Your task to perform on an android device: change keyboard looks Image 0: 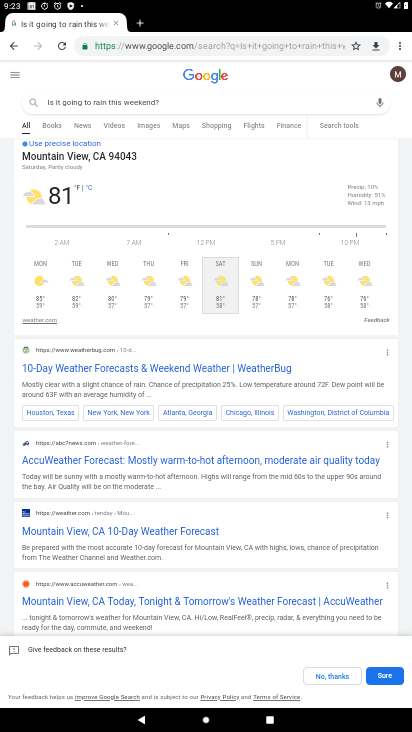
Step 0: press home button
Your task to perform on an android device: change keyboard looks Image 1: 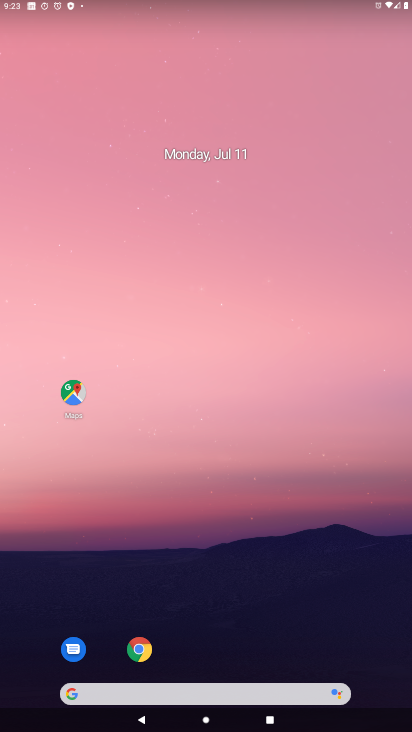
Step 1: drag from (224, 690) to (192, 2)
Your task to perform on an android device: change keyboard looks Image 2: 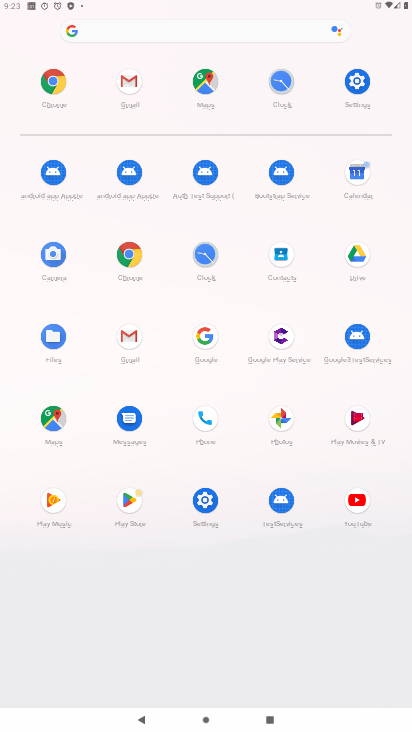
Step 2: click (208, 499)
Your task to perform on an android device: change keyboard looks Image 3: 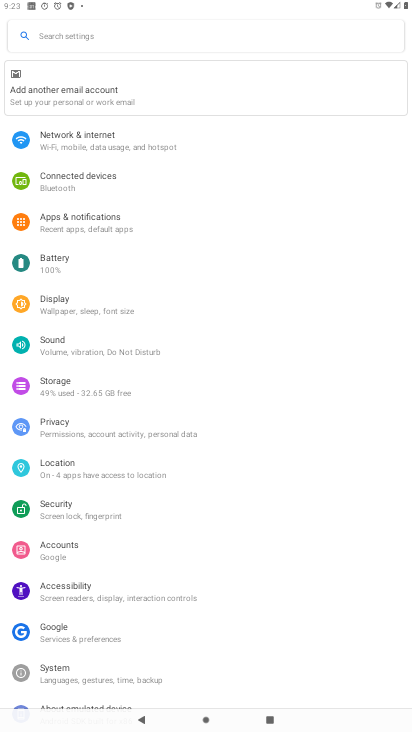
Step 3: click (71, 669)
Your task to perform on an android device: change keyboard looks Image 4: 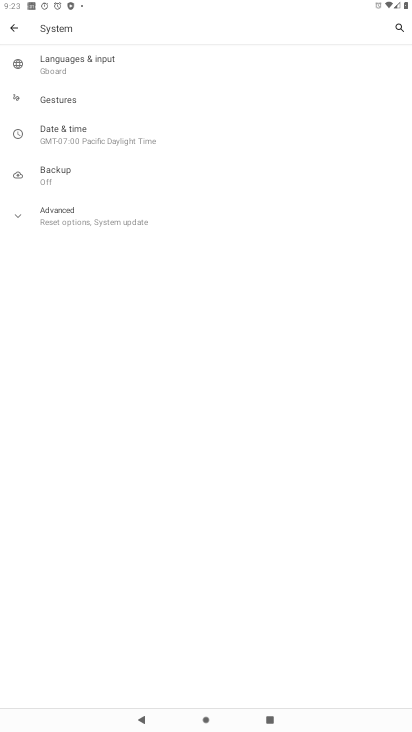
Step 4: click (83, 59)
Your task to perform on an android device: change keyboard looks Image 5: 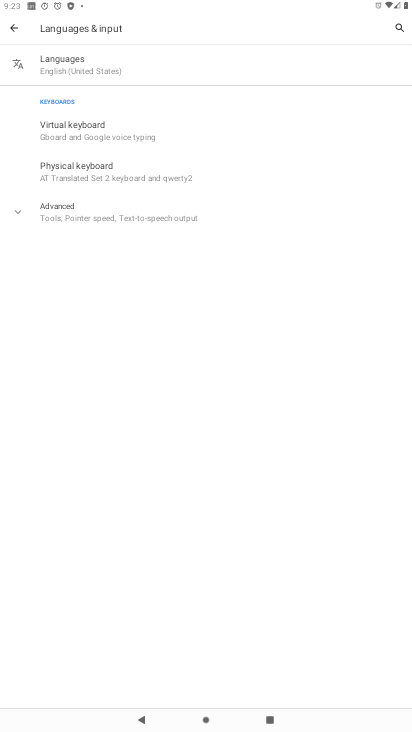
Step 5: click (94, 134)
Your task to perform on an android device: change keyboard looks Image 6: 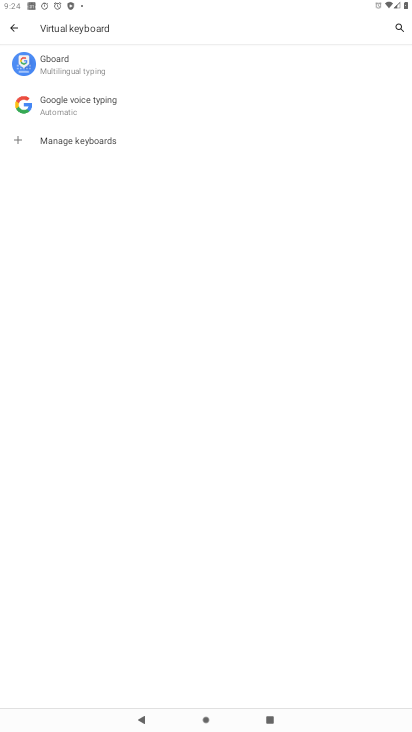
Step 6: click (79, 67)
Your task to perform on an android device: change keyboard looks Image 7: 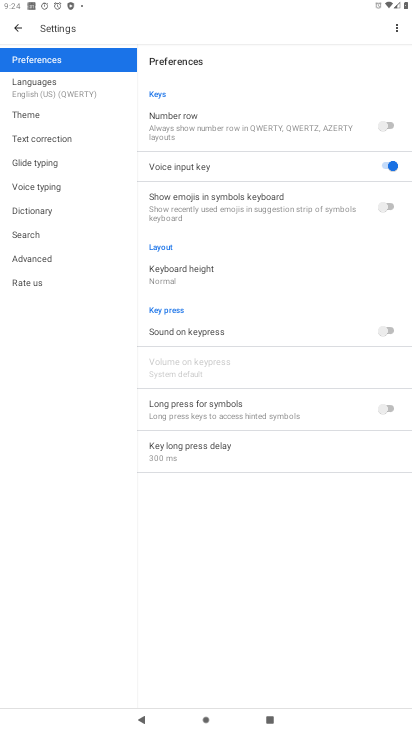
Step 7: click (26, 114)
Your task to perform on an android device: change keyboard looks Image 8: 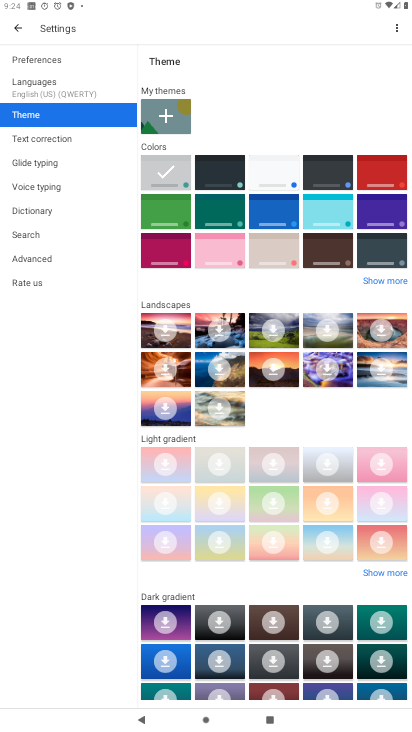
Step 8: click (169, 253)
Your task to perform on an android device: change keyboard looks Image 9: 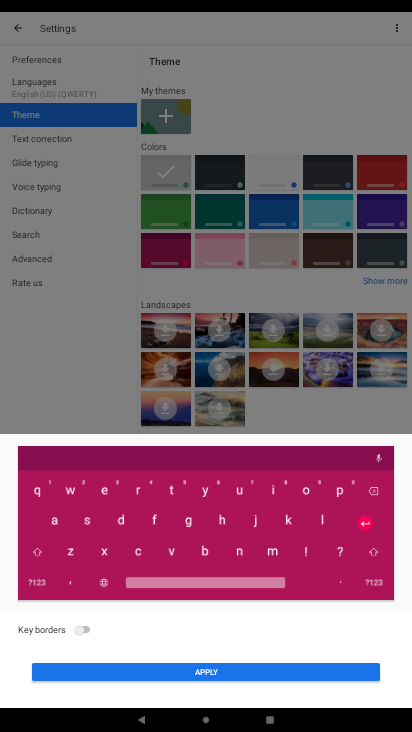
Step 9: click (75, 629)
Your task to perform on an android device: change keyboard looks Image 10: 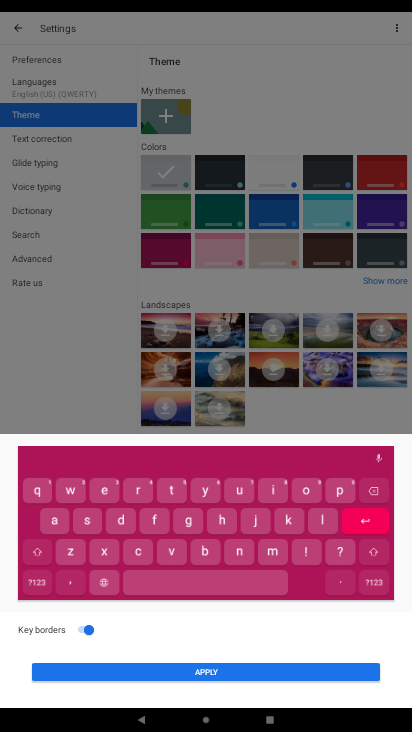
Step 10: click (174, 669)
Your task to perform on an android device: change keyboard looks Image 11: 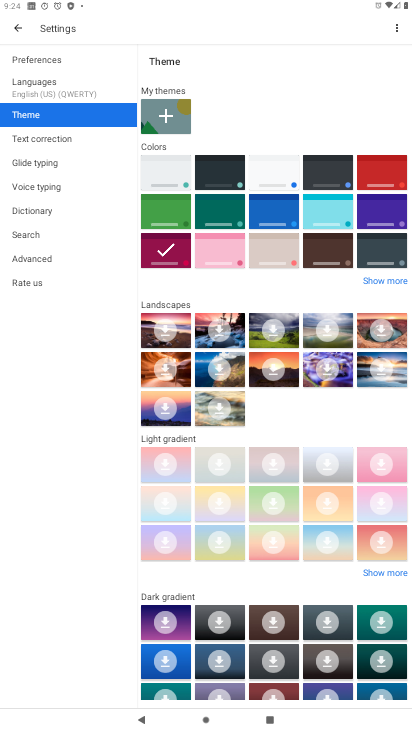
Step 11: task complete